Your task to perform on an android device: Search for desk lamps on article.com Image 0: 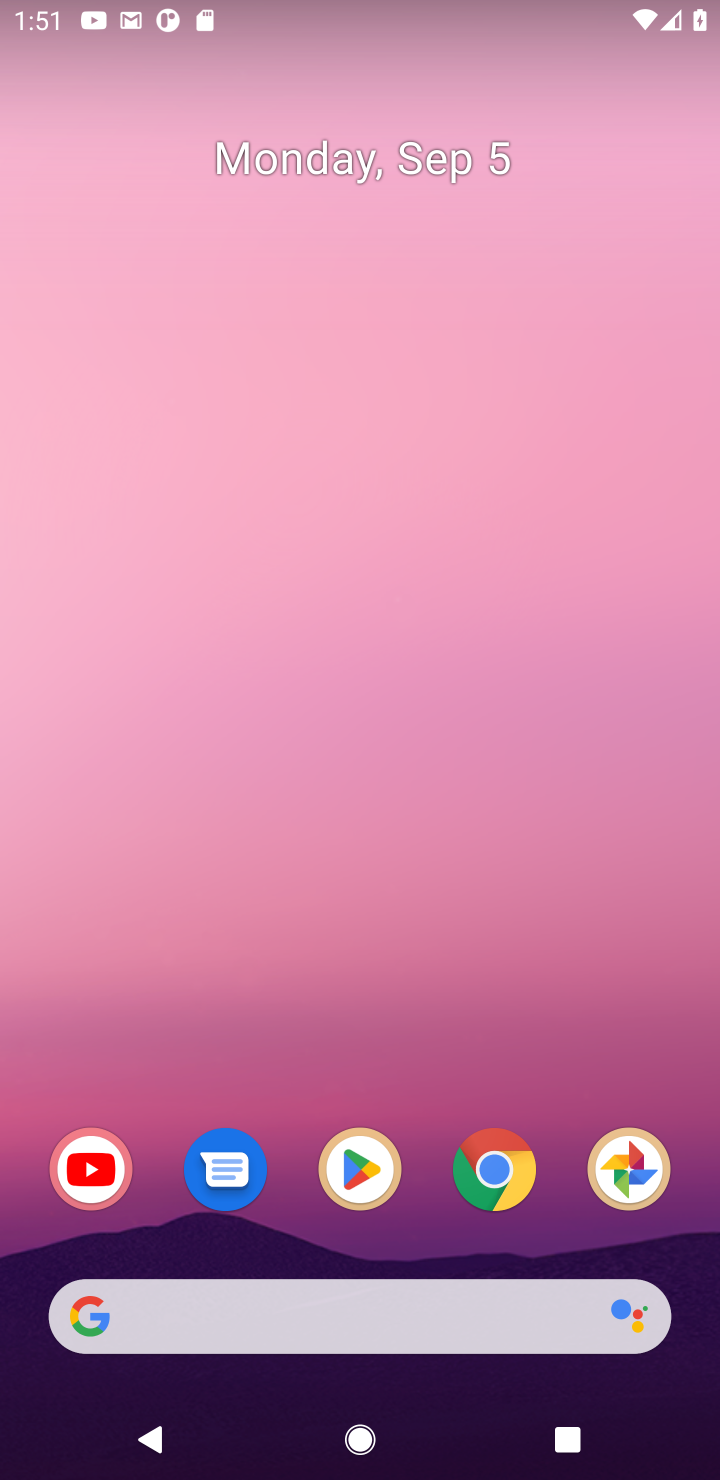
Step 0: click (360, 1196)
Your task to perform on an android device: Search for desk lamps on article.com Image 1: 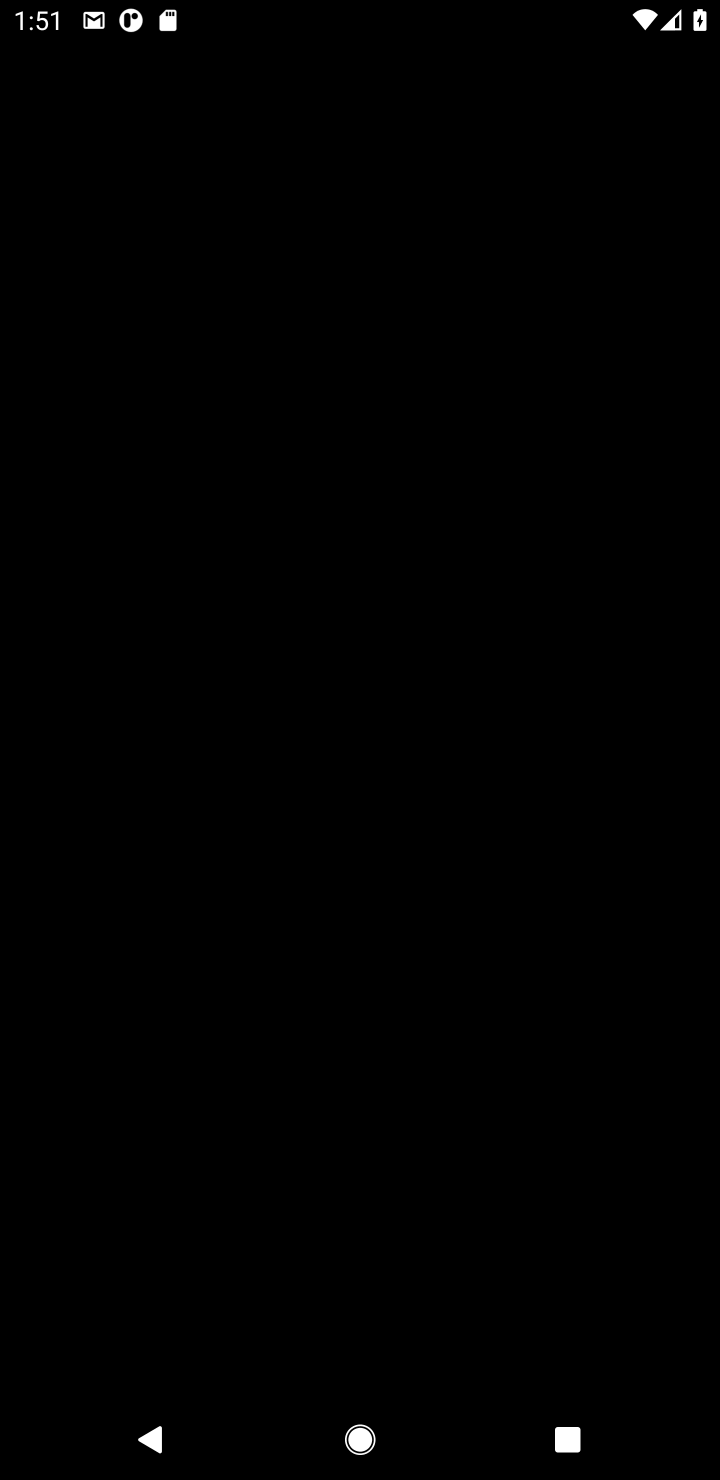
Step 1: task complete